Your task to perform on an android device: Go to eBay Image 0: 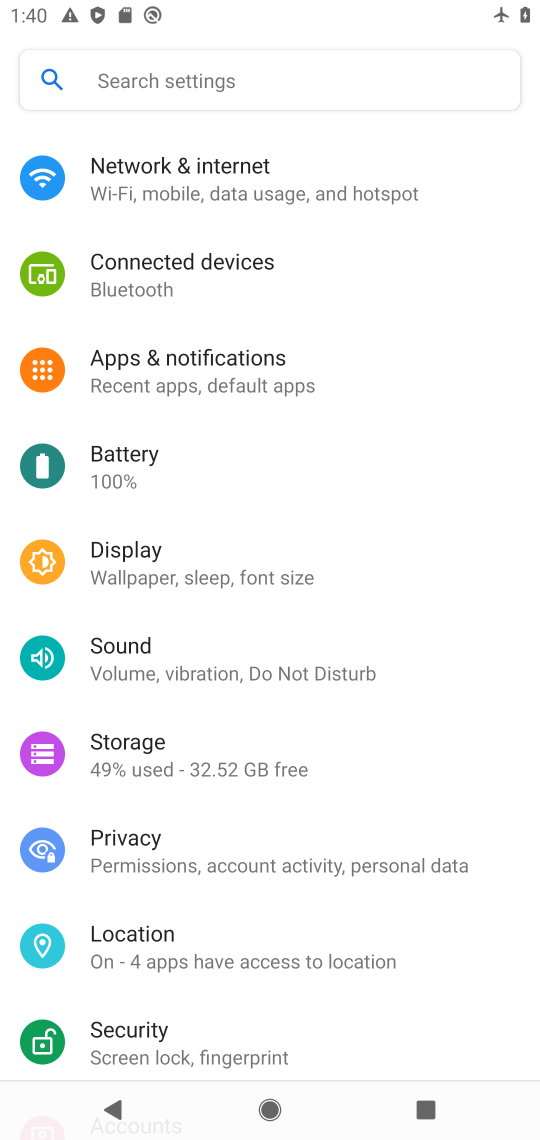
Step 0: press home button
Your task to perform on an android device: Go to eBay Image 1: 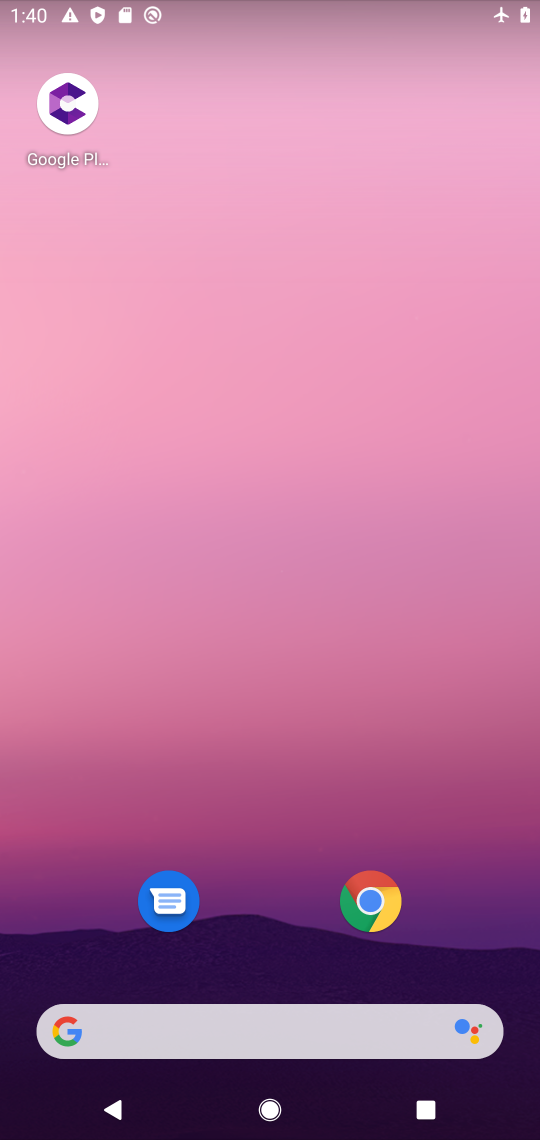
Step 1: click (374, 898)
Your task to perform on an android device: Go to eBay Image 2: 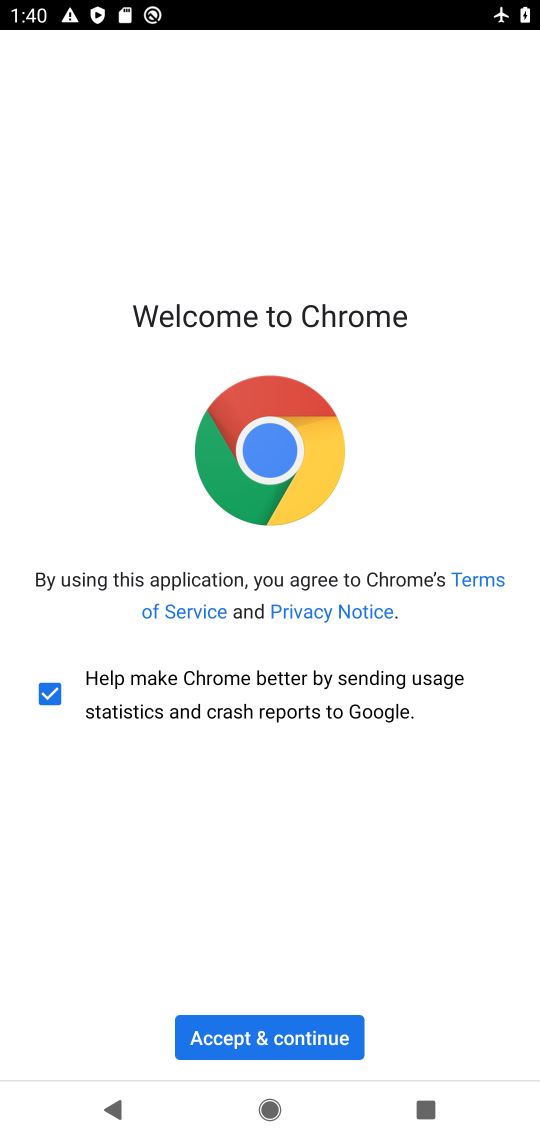
Step 2: click (234, 1031)
Your task to perform on an android device: Go to eBay Image 3: 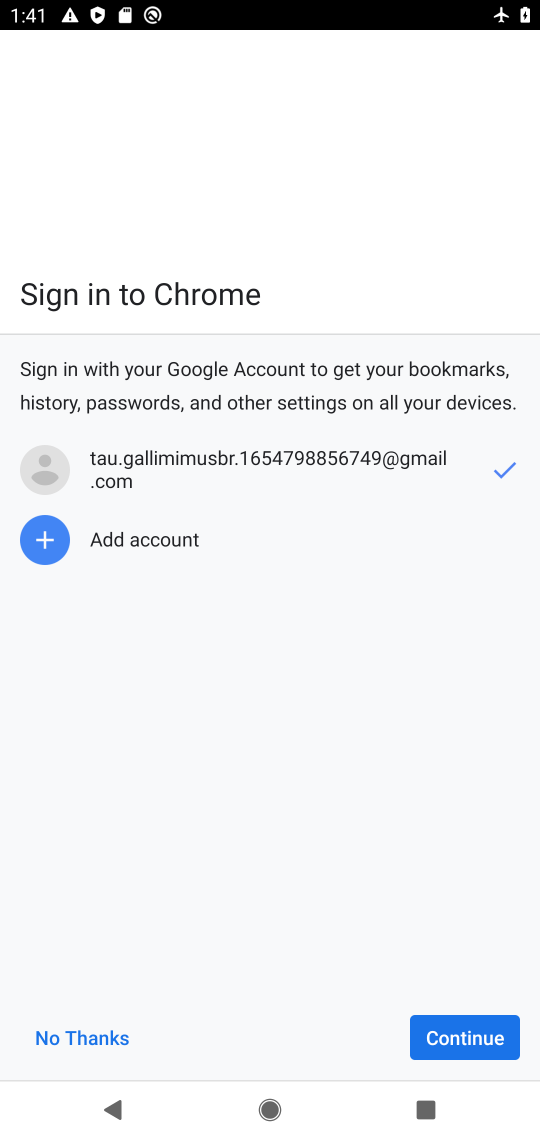
Step 3: click (469, 1029)
Your task to perform on an android device: Go to eBay Image 4: 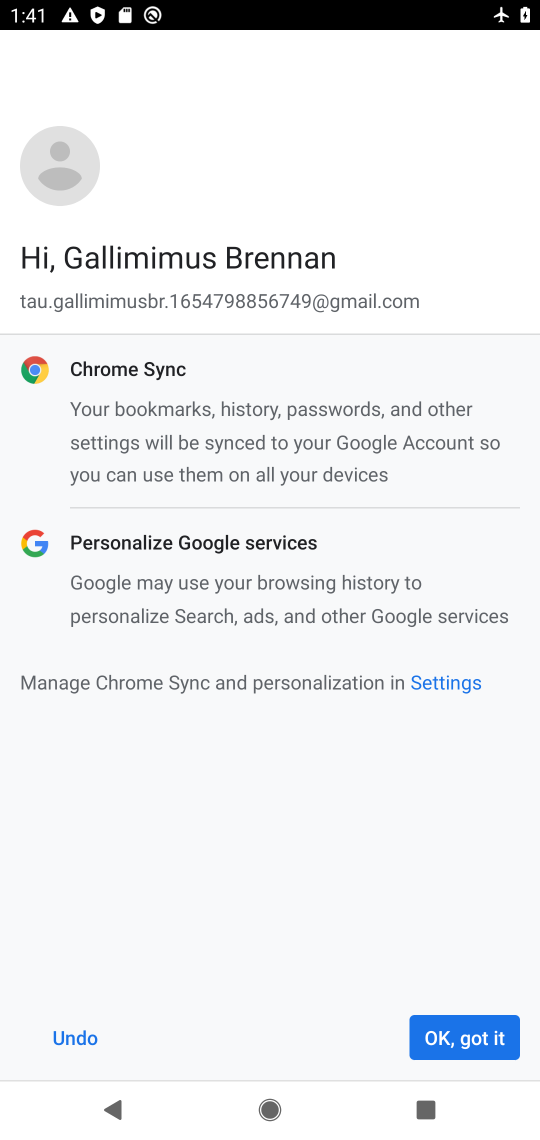
Step 4: click (457, 1046)
Your task to perform on an android device: Go to eBay Image 5: 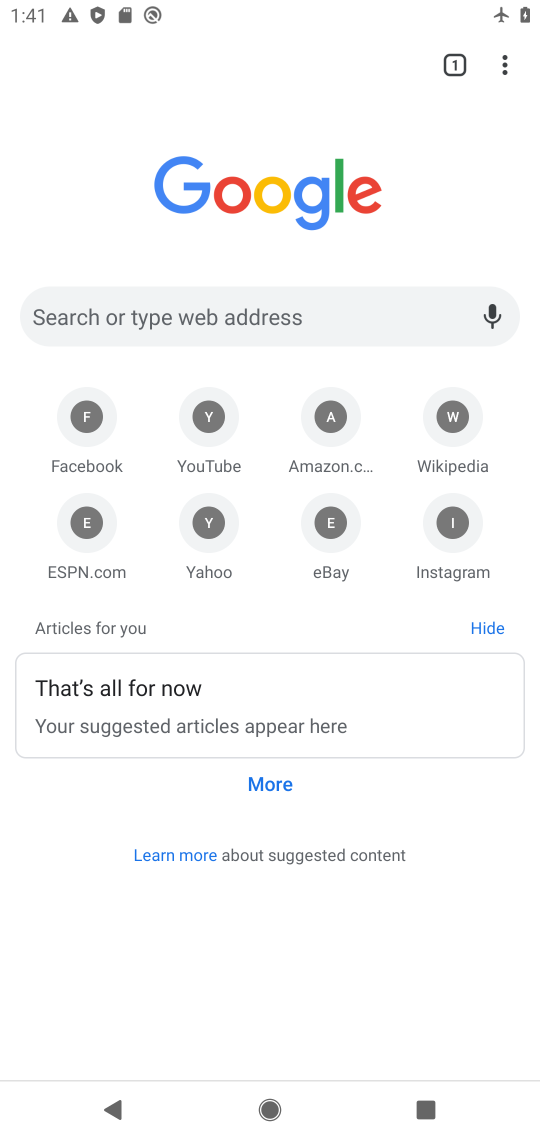
Step 5: click (330, 516)
Your task to perform on an android device: Go to eBay Image 6: 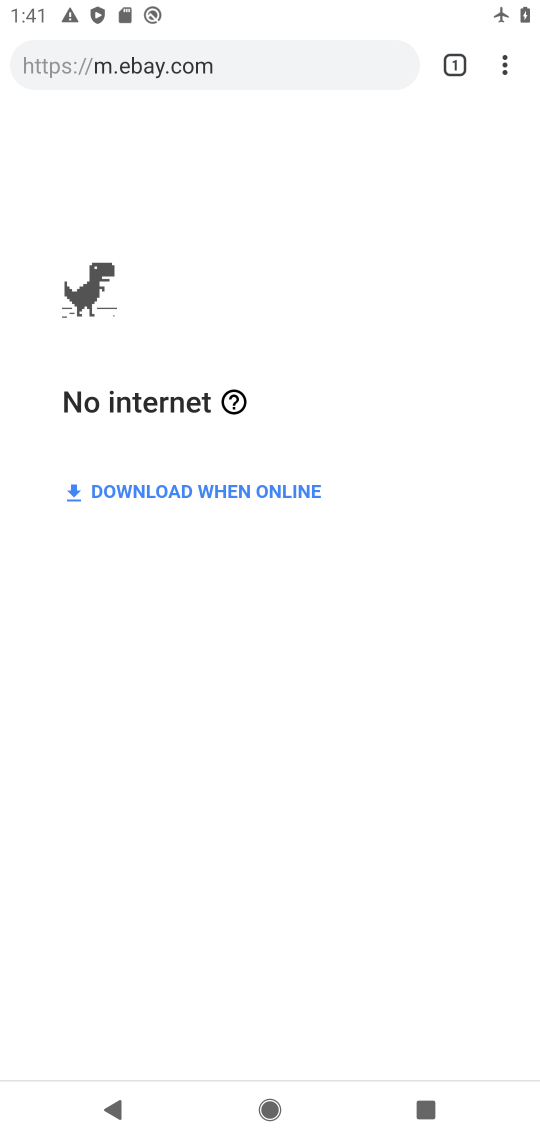
Step 6: task complete